Your task to perform on an android device: snooze an email in the gmail app Image 0: 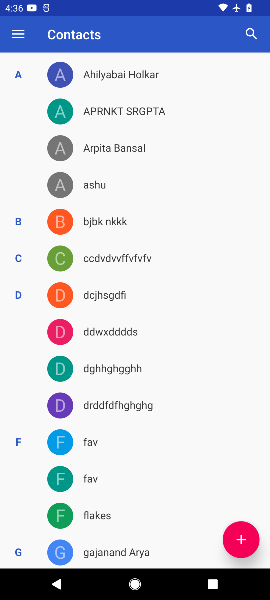
Step 0: press home button
Your task to perform on an android device: snooze an email in the gmail app Image 1: 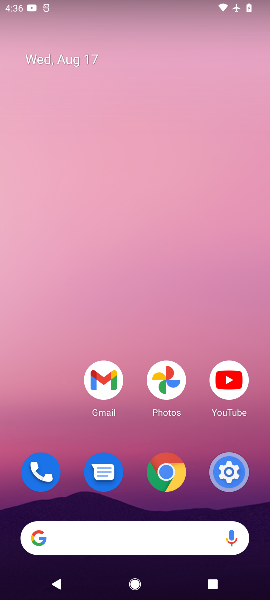
Step 1: click (106, 391)
Your task to perform on an android device: snooze an email in the gmail app Image 2: 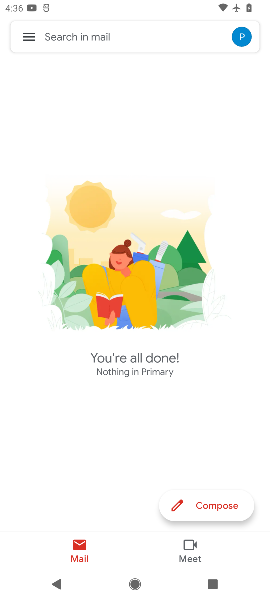
Step 2: task complete